Your task to perform on an android device: turn on bluetooth scan Image 0: 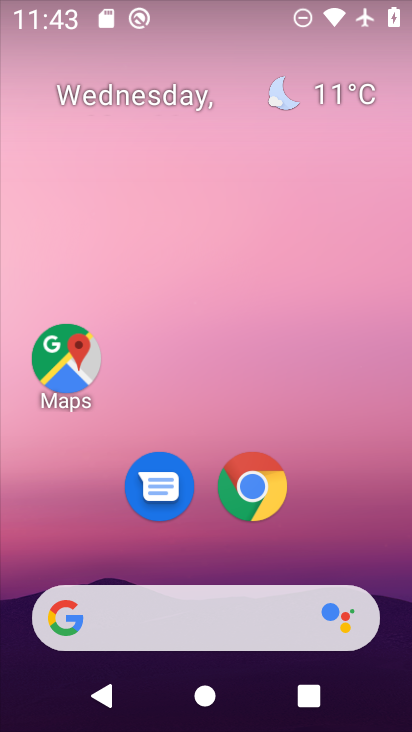
Step 0: drag from (350, 510) to (229, 19)
Your task to perform on an android device: turn on bluetooth scan Image 1: 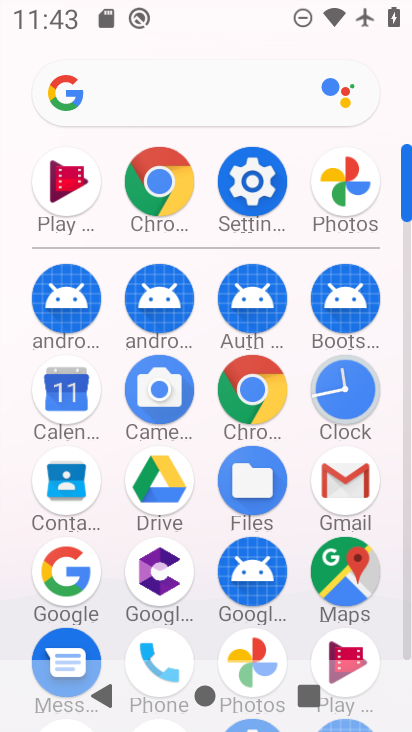
Step 1: drag from (7, 558) to (15, 259)
Your task to perform on an android device: turn on bluetooth scan Image 2: 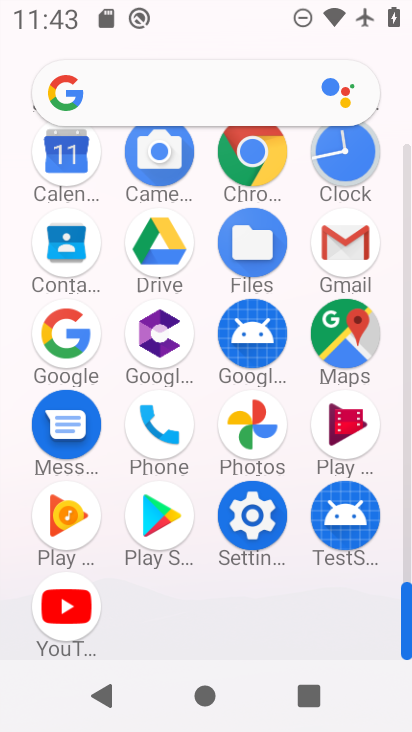
Step 2: click (250, 508)
Your task to perform on an android device: turn on bluetooth scan Image 3: 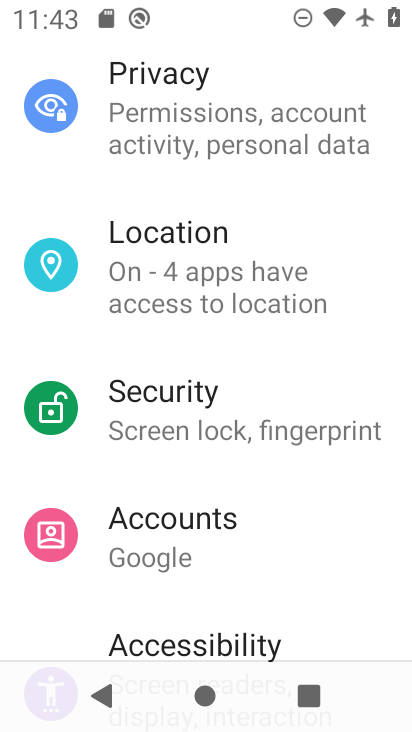
Step 3: drag from (283, 541) to (277, 120)
Your task to perform on an android device: turn on bluetooth scan Image 4: 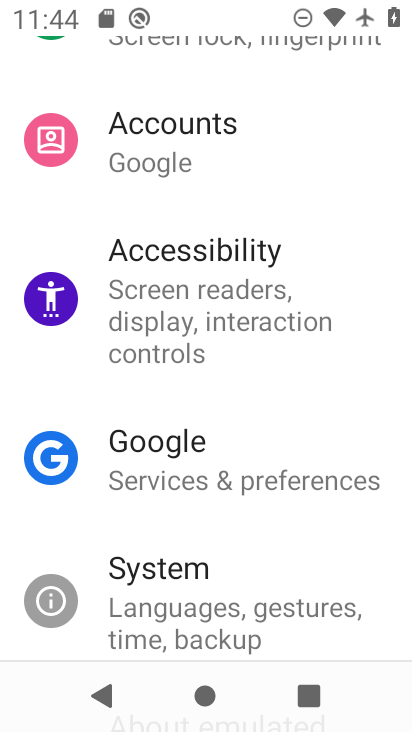
Step 4: drag from (306, 565) to (261, 188)
Your task to perform on an android device: turn on bluetooth scan Image 5: 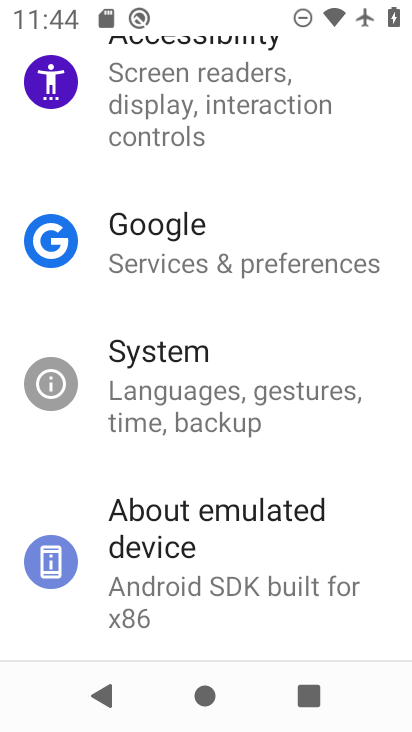
Step 5: drag from (272, 183) to (250, 597)
Your task to perform on an android device: turn on bluetooth scan Image 6: 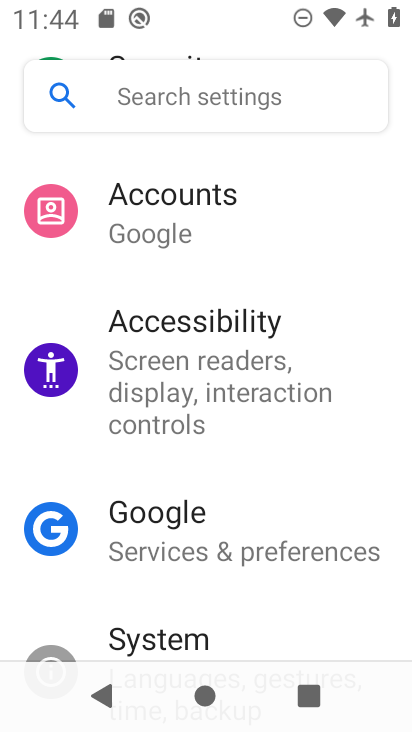
Step 6: drag from (271, 300) to (260, 580)
Your task to perform on an android device: turn on bluetooth scan Image 7: 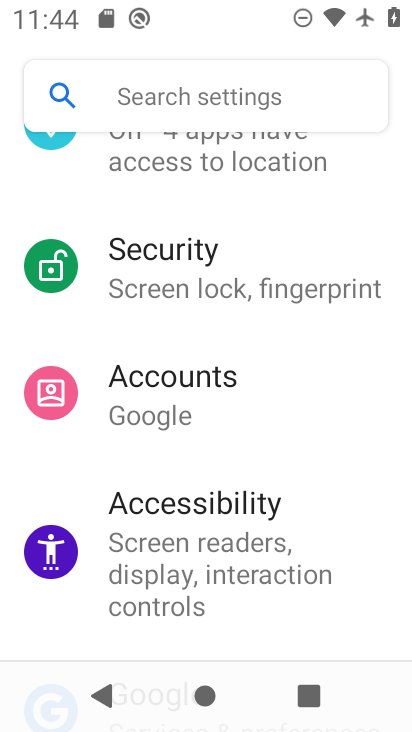
Step 7: drag from (279, 248) to (285, 571)
Your task to perform on an android device: turn on bluetooth scan Image 8: 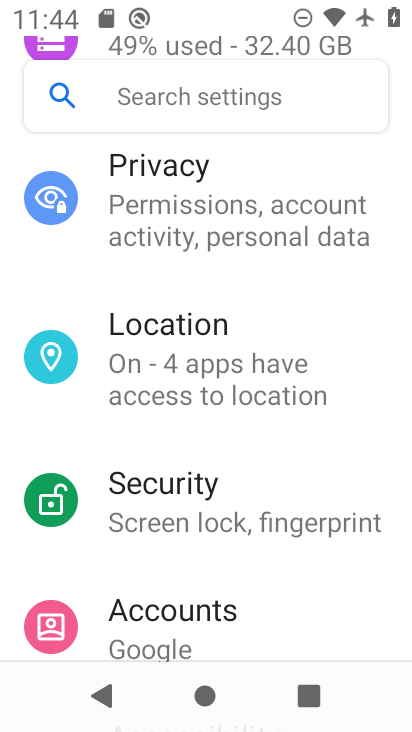
Step 8: click (227, 353)
Your task to perform on an android device: turn on bluetooth scan Image 9: 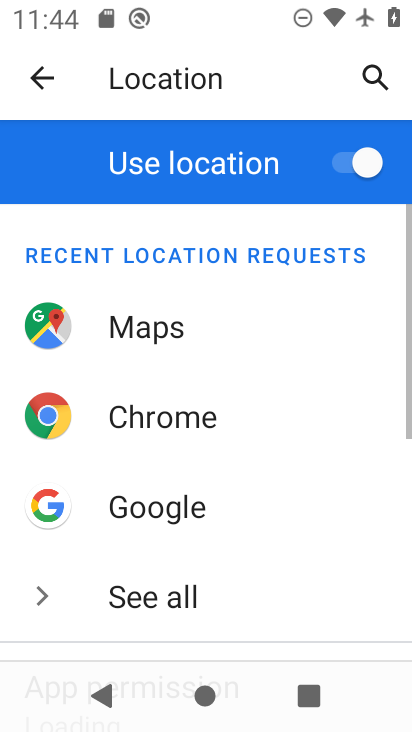
Step 9: drag from (267, 559) to (252, 185)
Your task to perform on an android device: turn on bluetooth scan Image 10: 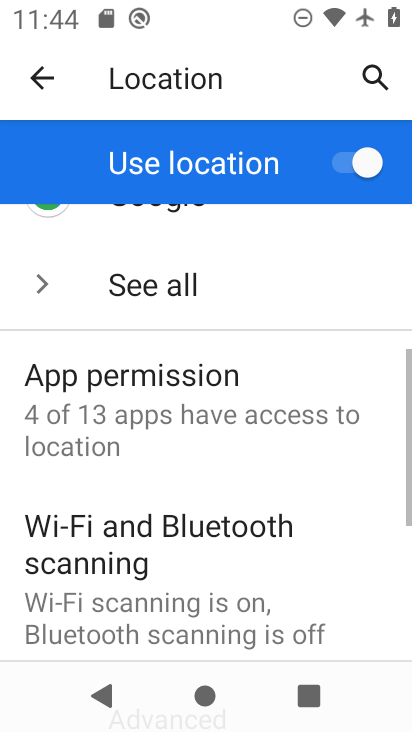
Step 10: drag from (255, 527) to (252, 230)
Your task to perform on an android device: turn on bluetooth scan Image 11: 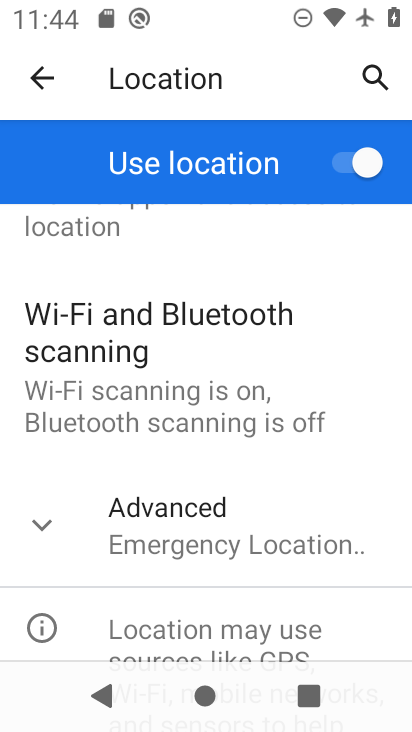
Step 11: click (236, 379)
Your task to perform on an android device: turn on bluetooth scan Image 12: 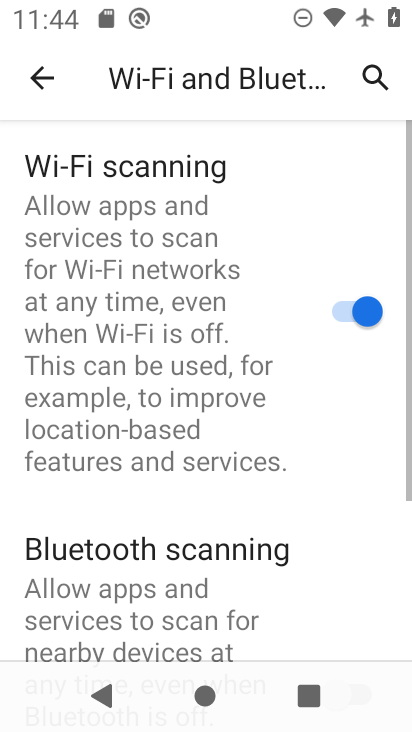
Step 12: drag from (223, 588) to (207, 168)
Your task to perform on an android device: turn on bluetooth scan Image 13: 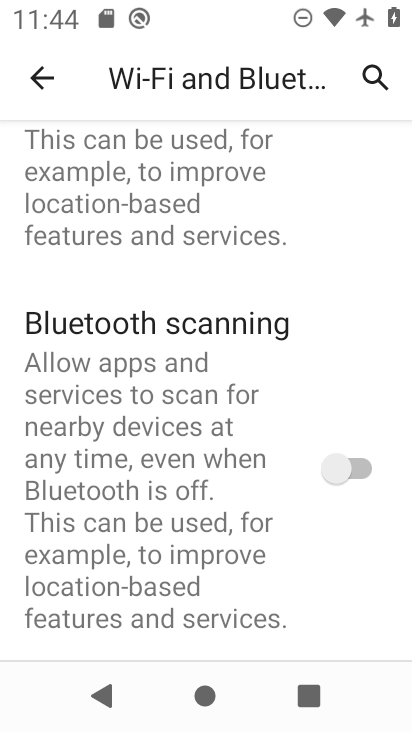
Step 13: click (353, 465)
Your task to perform on an android device: turn on bluetooth scan Image 14: 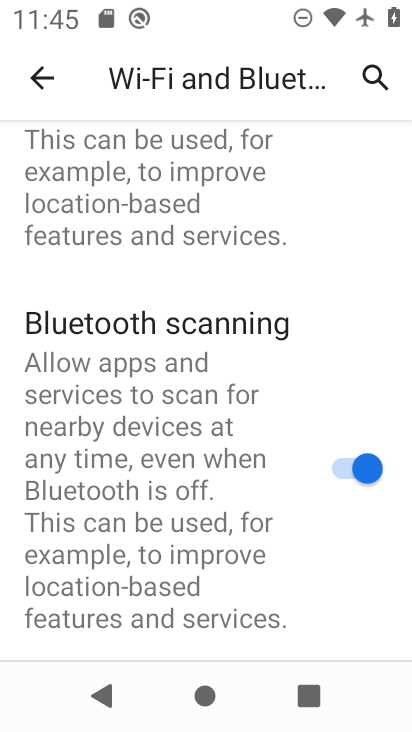
Step 14: task complete